Your task to perform on an android device: Go to battery settings Image 0: 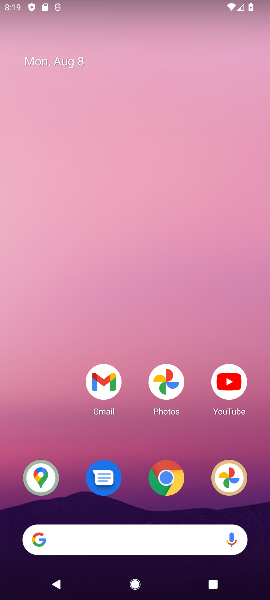
Step 0: press home button
Your task to perform on an android device: Go to battery settings Image 1: 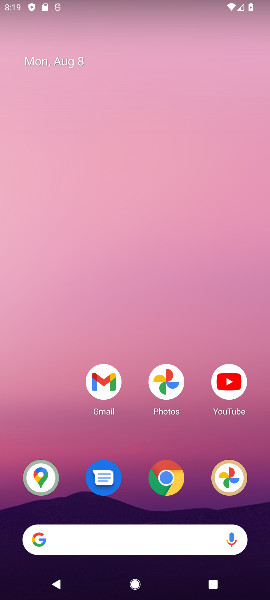
Step 1: drag from (143, 532) to (226, 138)
Your task to perform on an android device: Go to battery settings Image 2: 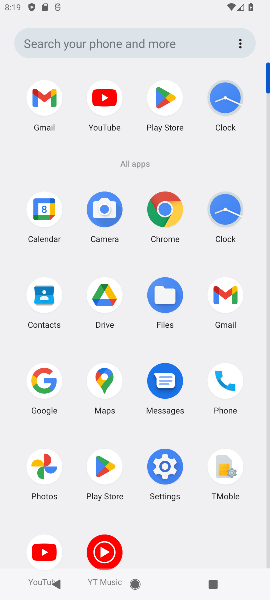
Step 2: click (166, 473)
Your task to perform on an android device: Go to battery settings Image 3: 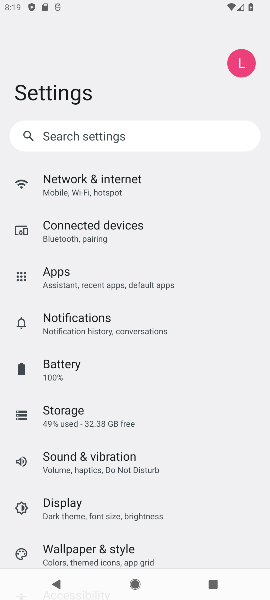
Step 3: click (74, 368)
Your task to perform on an android device: Go to battery settings Image 4: 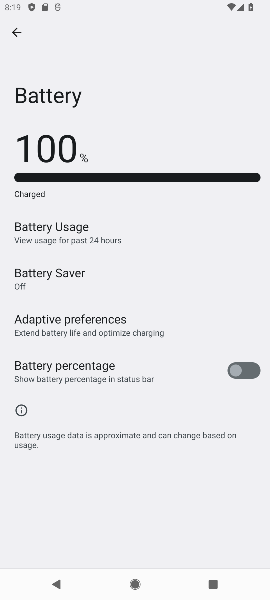
Step 4: task complete